Your task to perform on an android device: Go to Wikipedia Image 0: 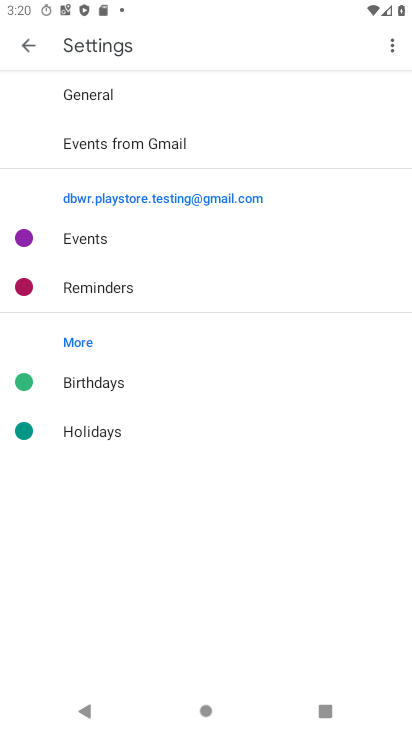
Step 0: press home button
Your task to perform on an android device: Go to Wikipedia Image 1: 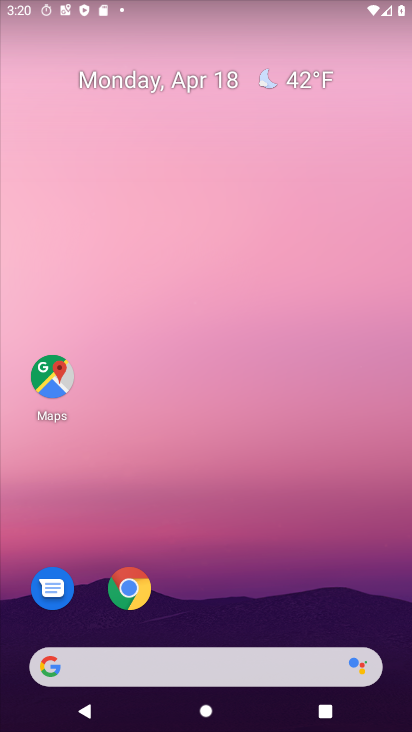
Step 1: click (130, 590)
Your task to perform on an android device: Go to Wikipedia Image 2: 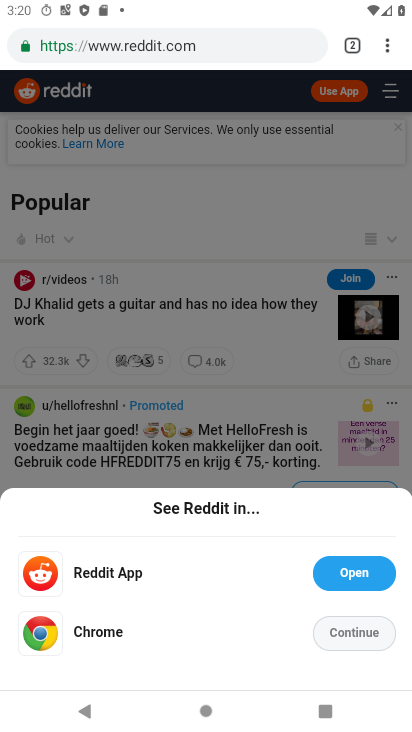
Step 2: click (352, 43)
Your task to perform on an android device: Go to Wikipedia Image 3: 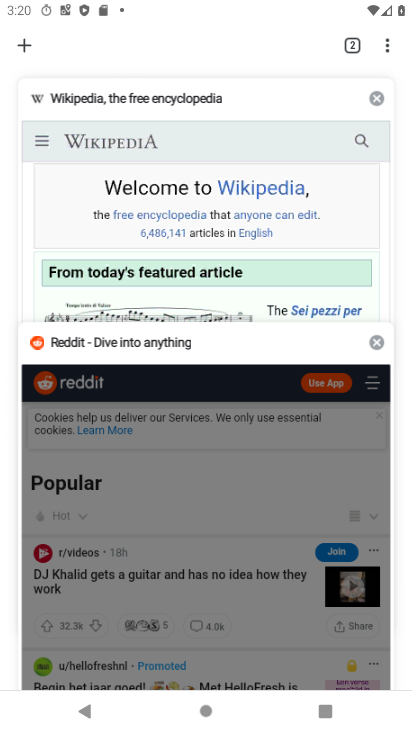
Step 3: click (20, 59)
Your task to perform on an android device: Go to Wikipedia Image 4: 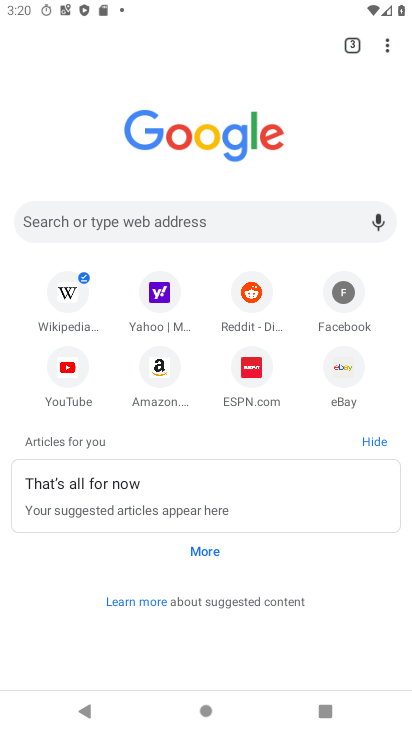
Step 4: click (65, 285)
Your task to perform on an android device: Go to Wikipedia Image 5: 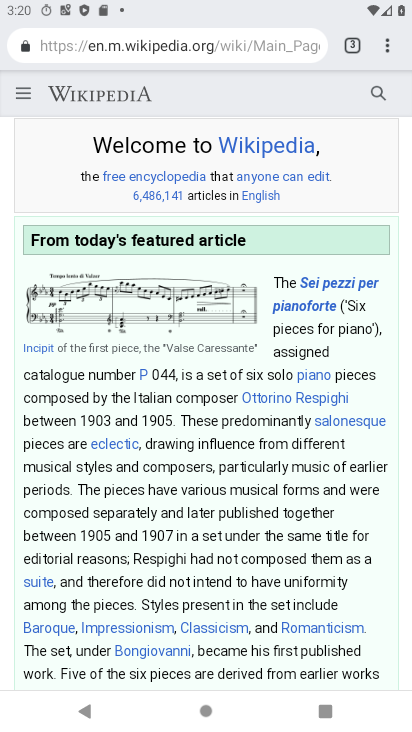
Step 5: task complete